Your task to perform on an android device: turn on wifi Image 0: 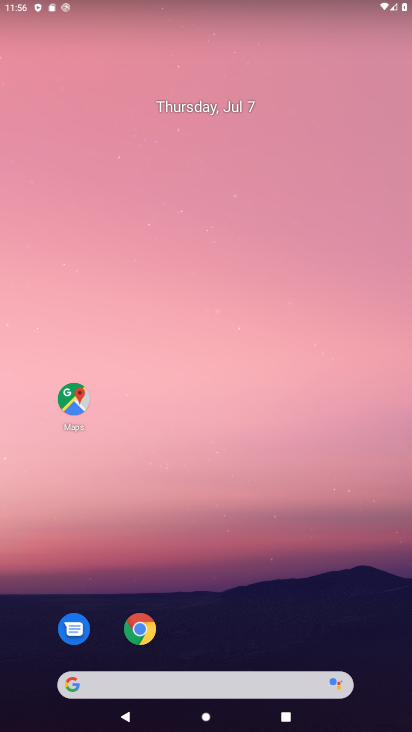
Step 0: drag from (223, 6) to (202, 413)
Your task to perform on an android device: turn on wifi Image 1: 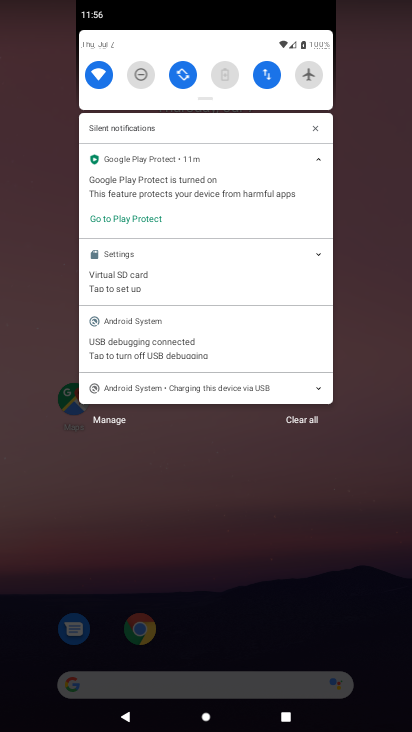
Step 1: task complete